Your task to perform on an android device: change the clock display to analog Image 0: 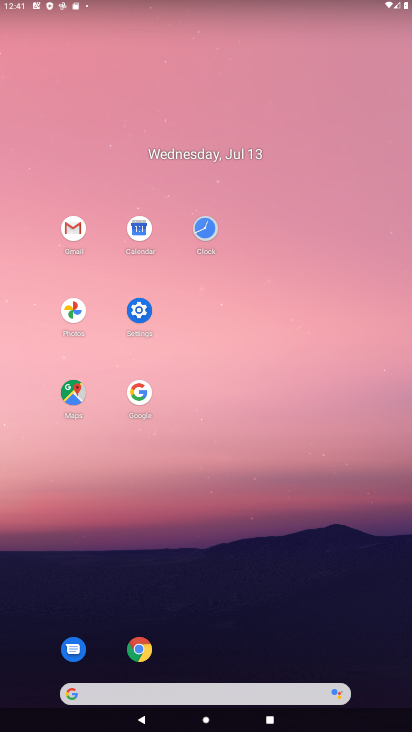
Step 0: click (203, 225)
Your task to perform on an android device: change the clock display to analog Image 1: 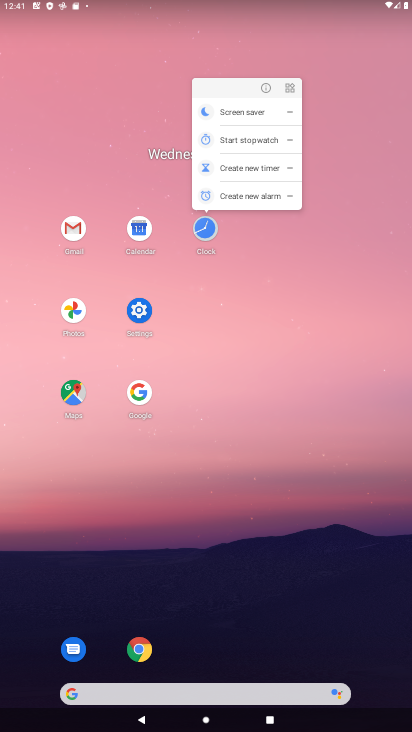
Step 1: click (318, 354)
Your task to perform on an android device: change the clock display to analog Image 2: 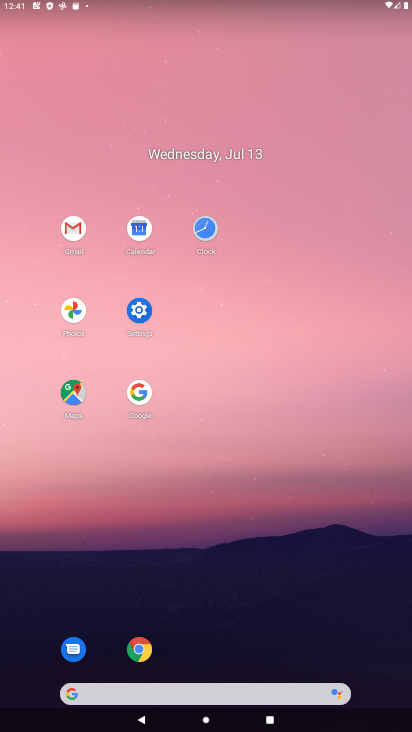
Step 2: click (206, 225)
Your task to perform on an android device: change the clock display to analog Image 3: 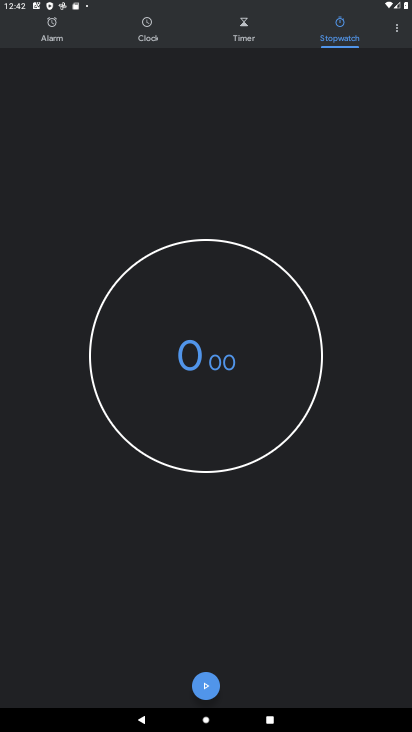
Step 3: click (399, 21)
Your task to perform on an android device: change the clock display to analog Image 4: 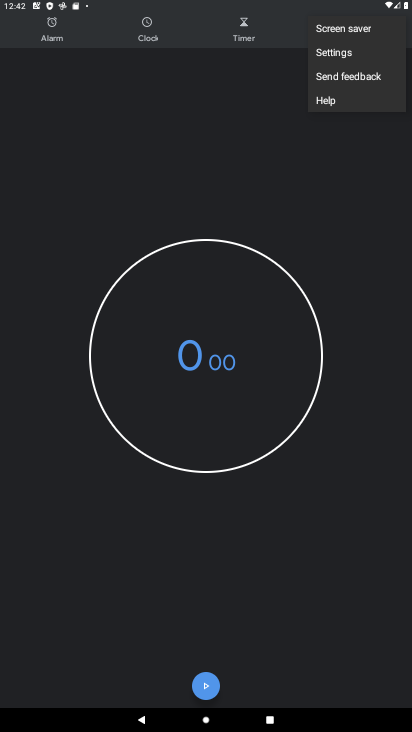
Step 4: click (342, 56)
Your task to perform on an android device: change the clock display to analog Image 5: 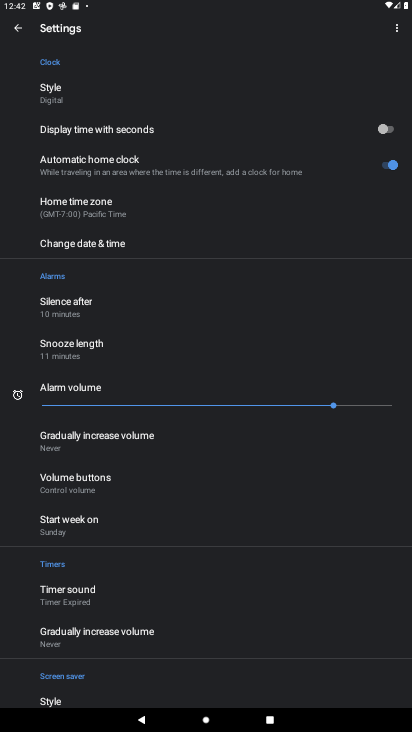
Step 5: click (105, 89)
Your task to perform on an android device: change the clock display to analog Image 6: 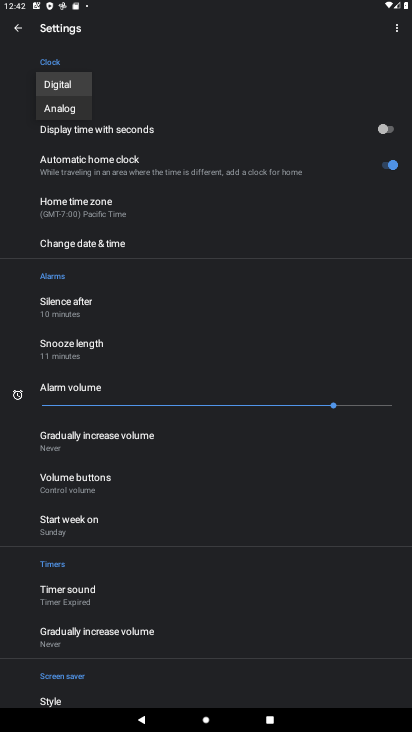
Step 6: click (81, 103)
Your task to perform on an android device: change the clock display to analog Image 7: 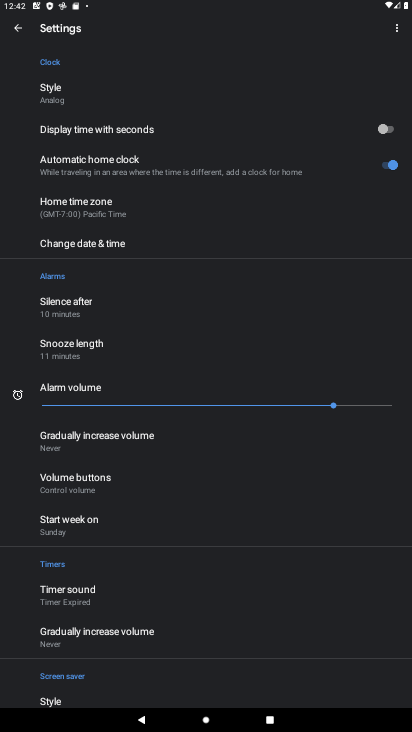
Step 7: task complete